Your task to perform on an android device: empty trash in google photos Image 0: 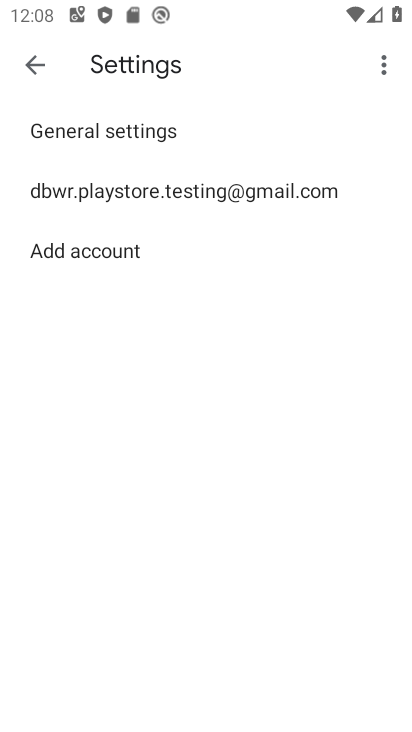
Step 0: press home button
Your task to perform on an android device: empty trash in google photos Image 1: 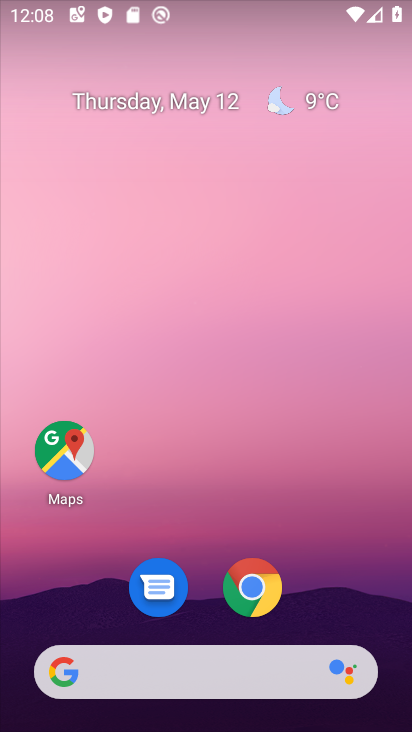
Step 1: drag from (294, 614) to (320, 254)
Your task to perform on an android device: empty trash in google photos Image 2: 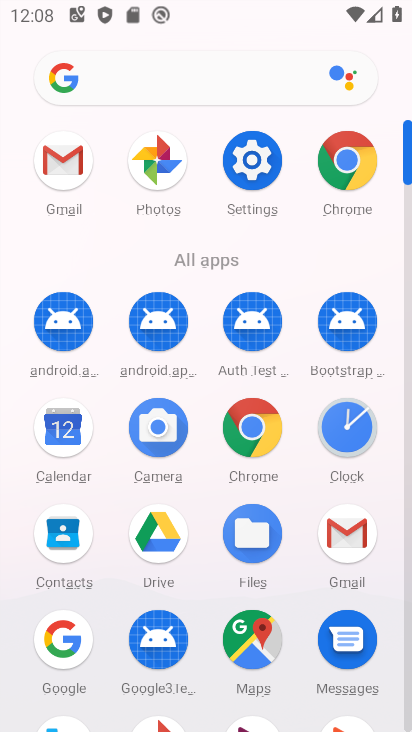
Step 2: drag from (235, 594) to (272, 246)
Your task to perform on an android device: empty trash in google photos Image 3: 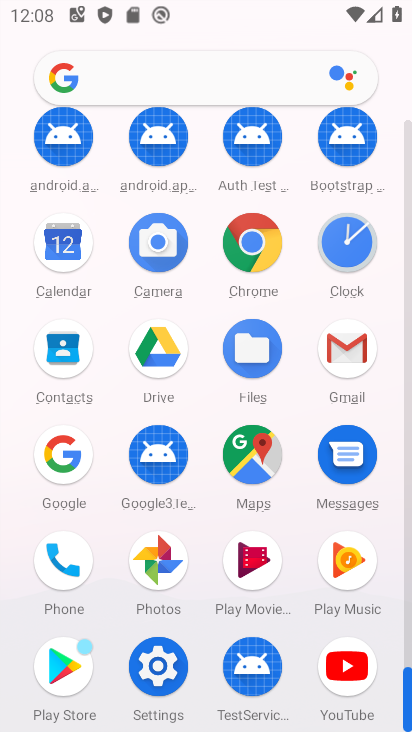
Step 3: click (141, 546)
Your task to perform on an android device: empty trash in google photos Image 4: 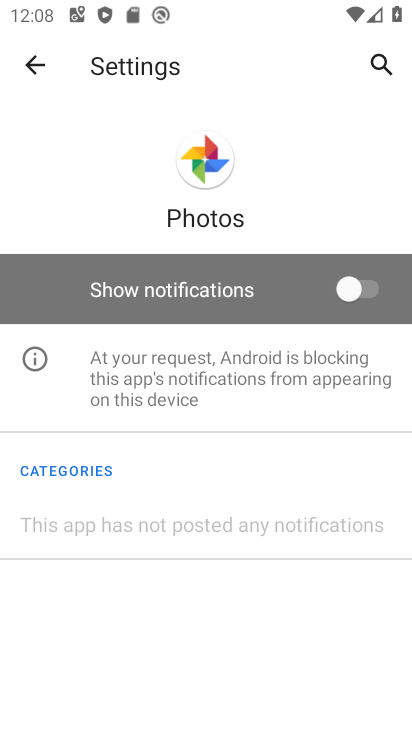
Step 4: click (24, 60)
Your task to perform on an android device: empty trash in google photos Image 5: 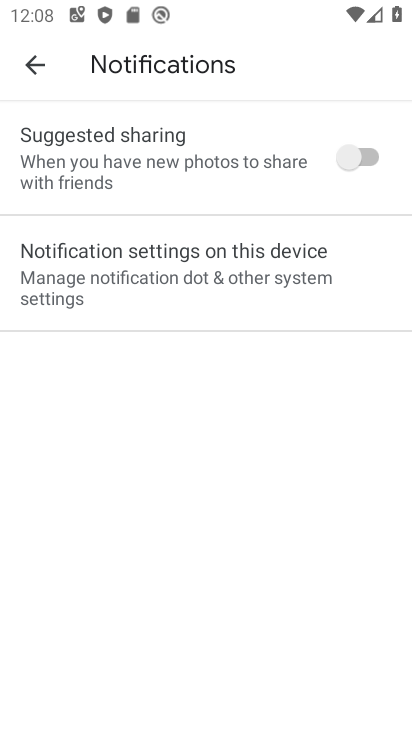
Step 5: click (34, 62)
Your task to perform on an android device: empty trash in google photos Image 6: 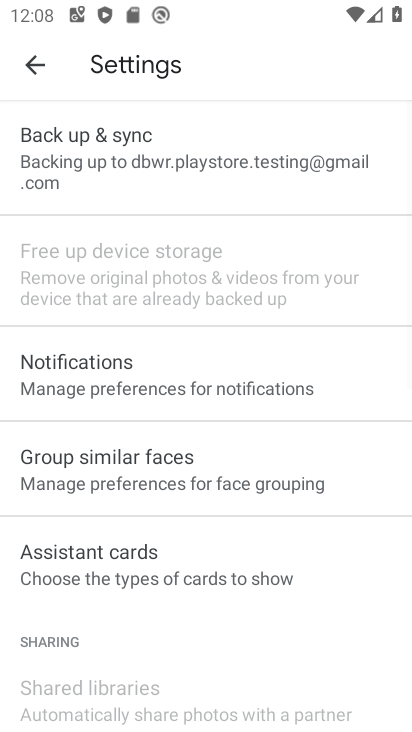
Step 6: click (22, 49)
Your task to perform on an android device: empty trash in google photos Image 7: 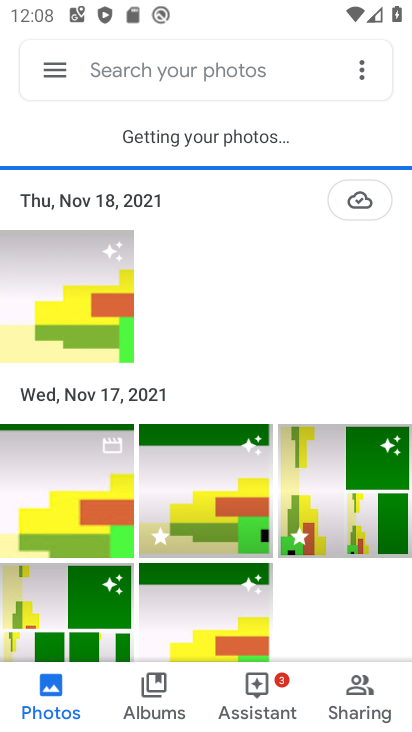
Step 7: click (55, 58)
Your task to perform on an android device: empty trash in google photos Image 8: 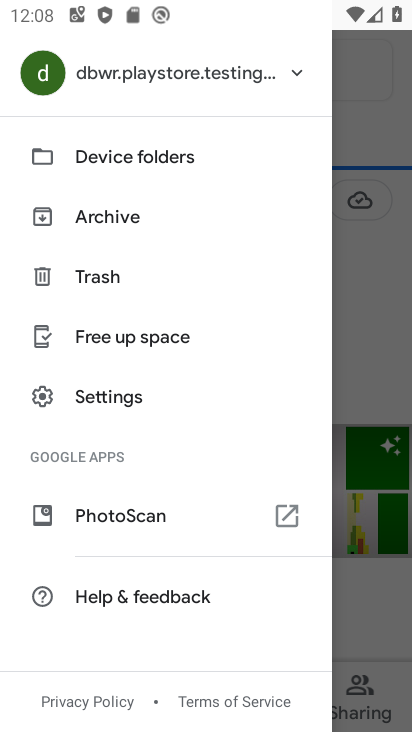
Step 8: click (105, 279)
Your task to perform on an android device: empty trash in google photos Image 9: 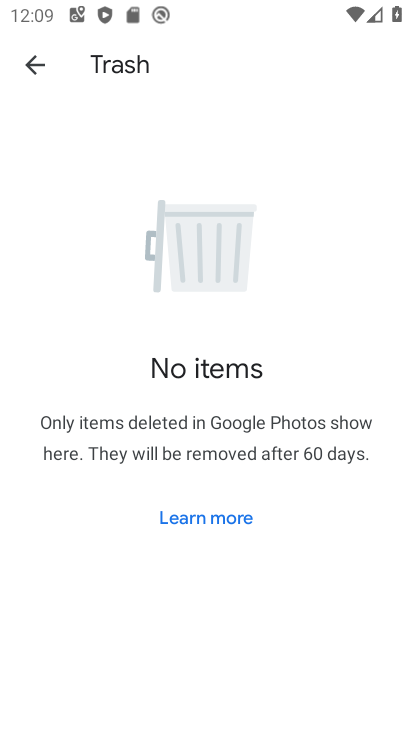
Step 9: task complete